Your task to perform on an android device: Open the map Image 0: 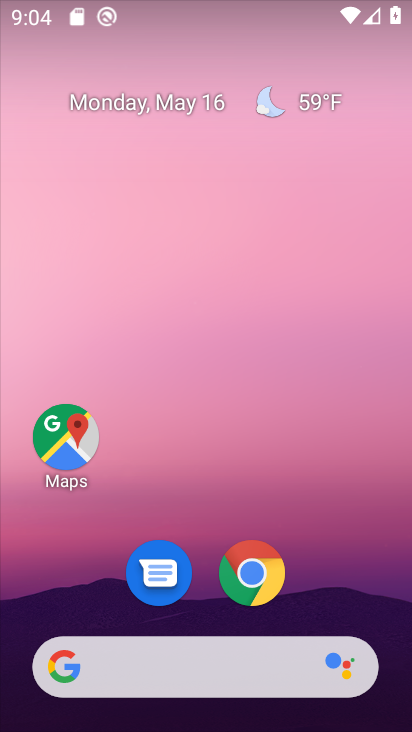
Step 0: click (67, 458)
Your task to perform on an android device: Open the map Image 1: 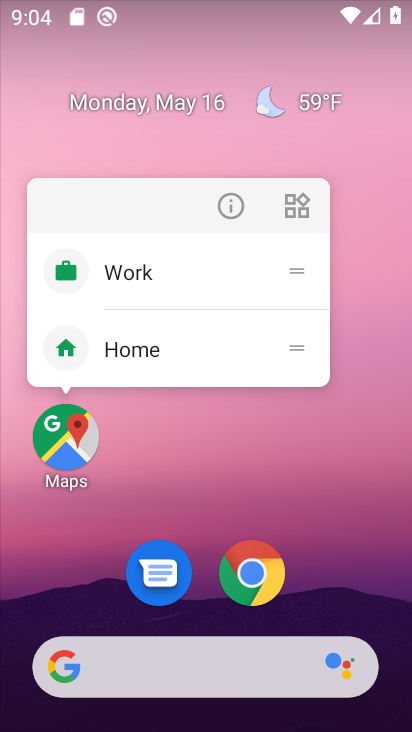
Step 1: click (67, 458)
Your task to perform on an android device: Open the map Image 2: 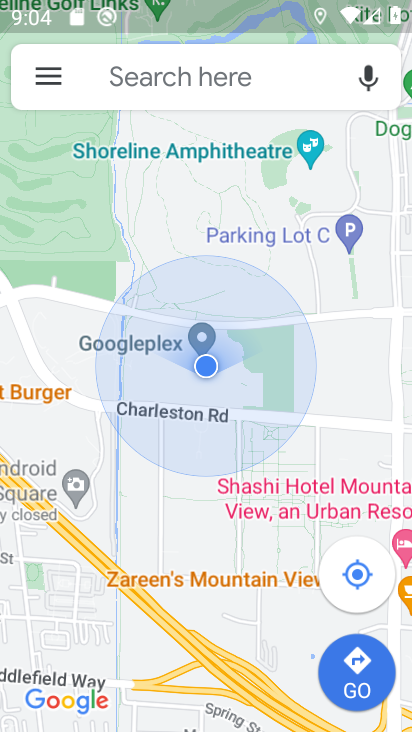
Step 2: task complete